Your task to perform on an android device: search for starred emails in the gmail app Image 0: 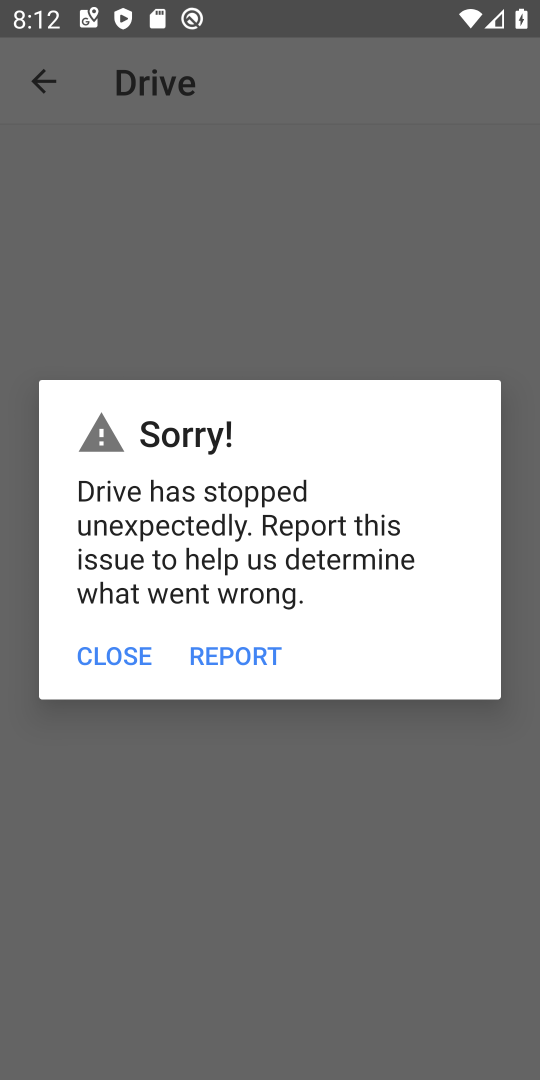
Step 0: press home button
Your task to perform on an android device: search for starred emails in the gmail app Image 1: 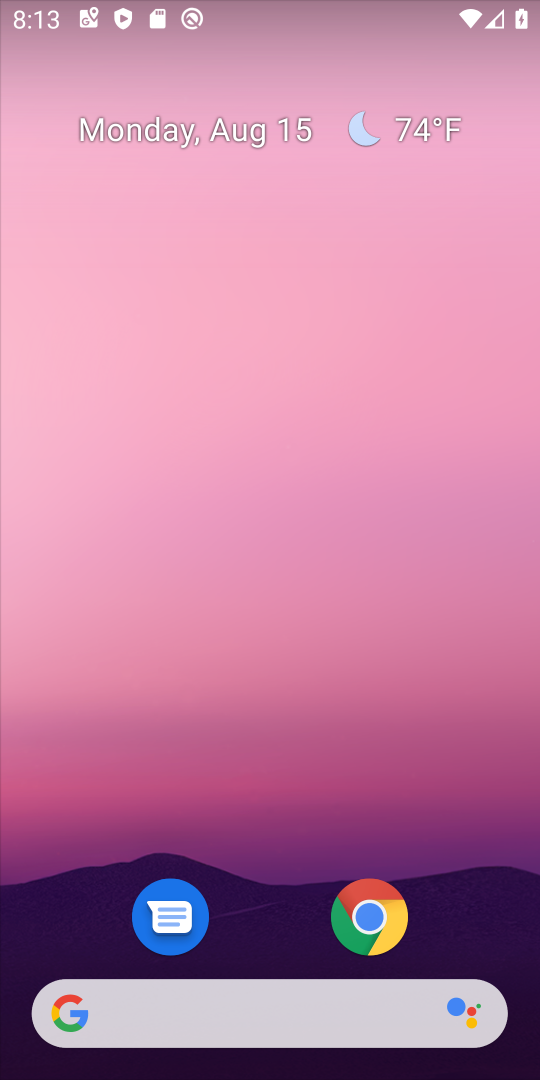
Step 1: drag from (281, 899) to (292, 0)
Your task to perform on an android device: search for starred emails in the gmail app Image 2: 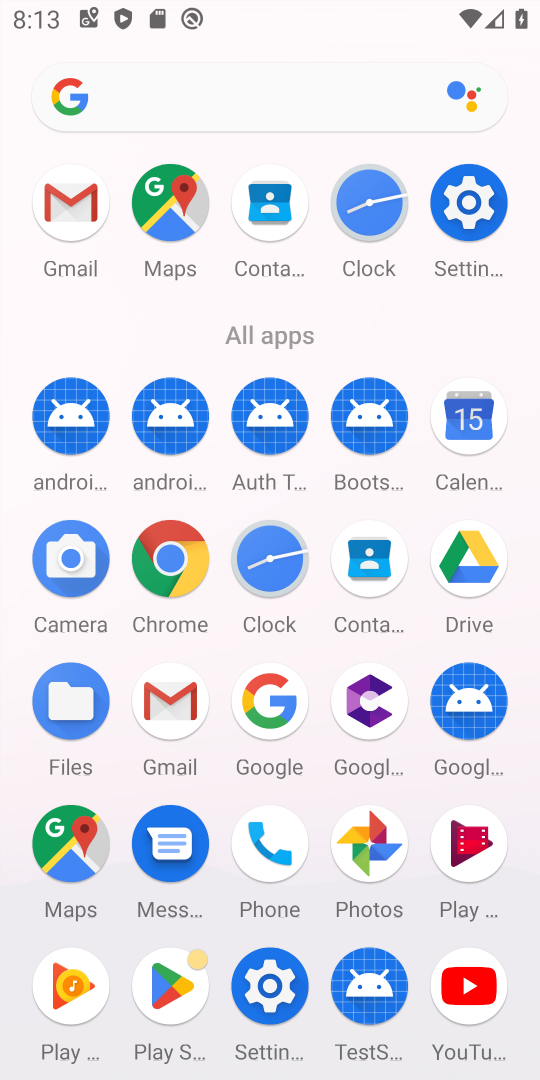
Step 2: click (71, 208)
Your task to perform on an android device: search for starred emails in the gmail app Image 3: 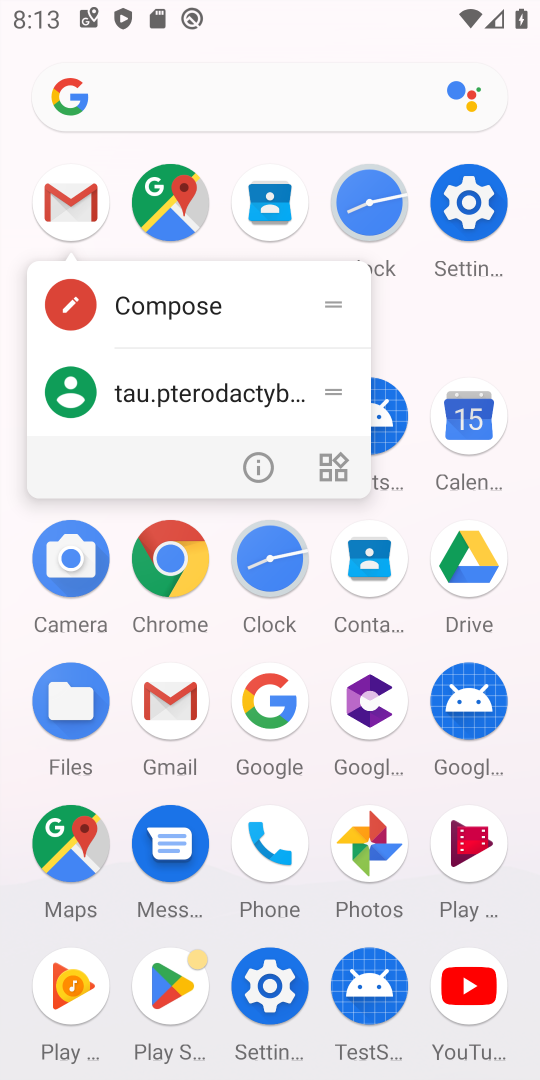
Step 3: click (73, 205)
Your task to perform on an android device: search for starred emails in the gmail app Image 4: 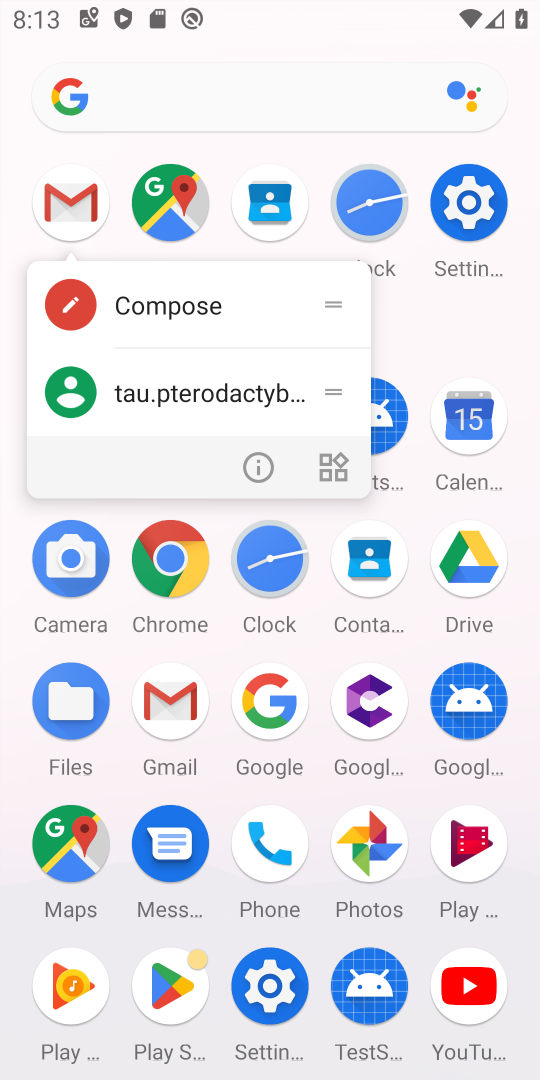
Step 4: click (73, 209)
Your task to perform on an android device: search for starred emails in the gmail app Image 5: 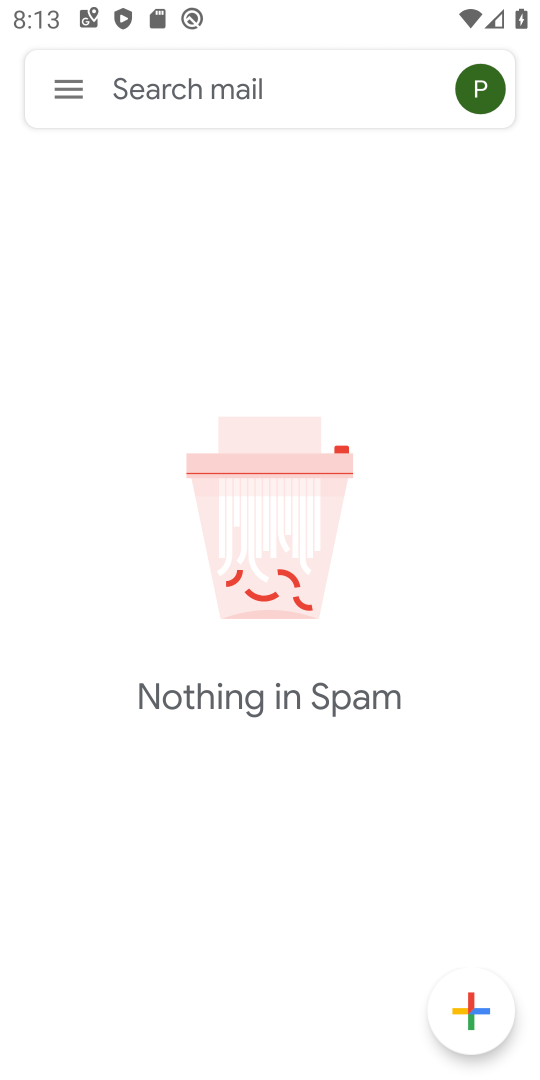
Step 5: click (70, 78)
Your task to perform on an android device: search for starred emails in the gmail app Image 6: 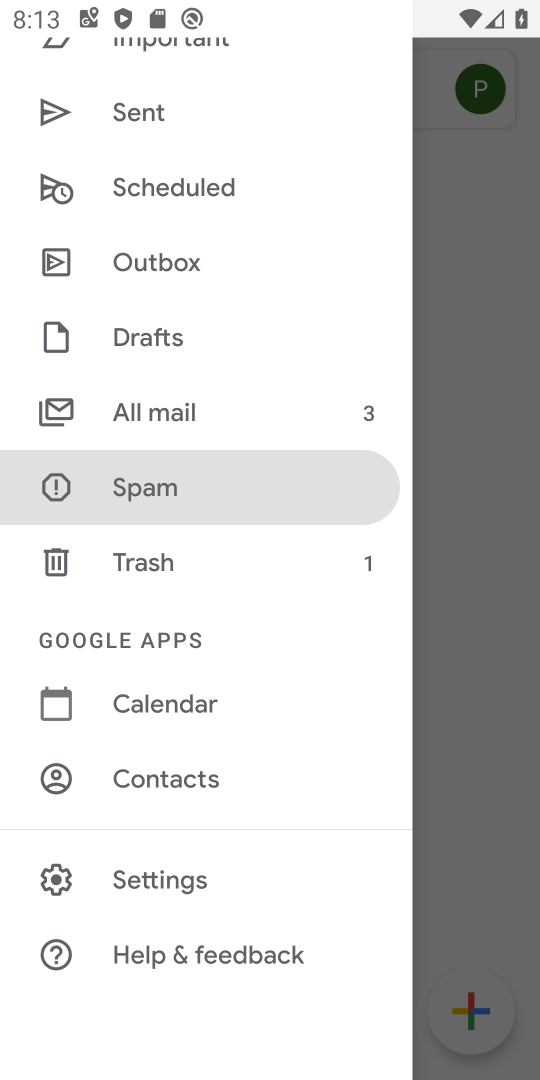
Step 6: drag from (211, 263) to (217, 786)
Your task to perform on an android device: search for starred emails in the gmail app Image 7: 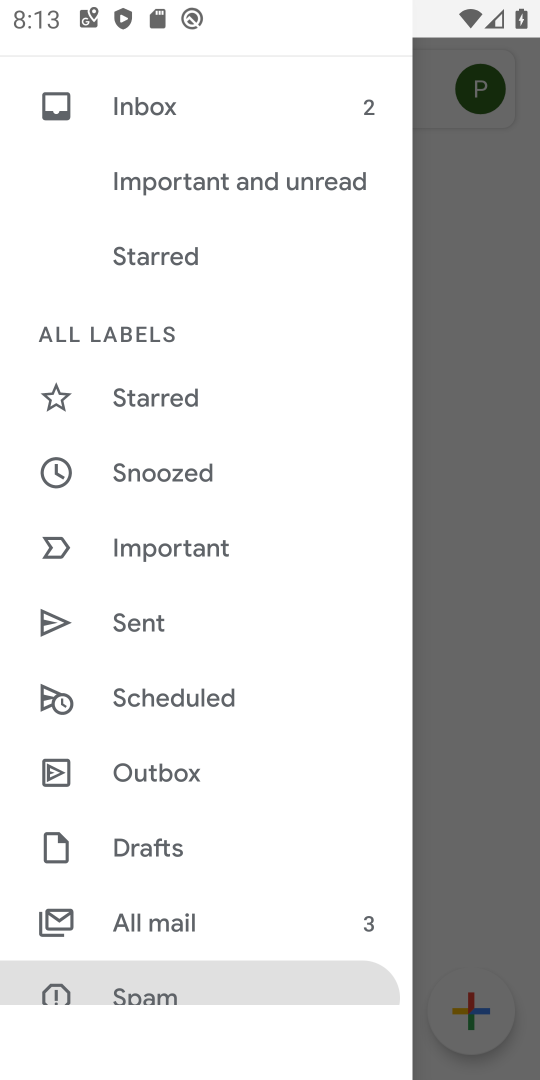
Step 7: click (189, 398)
Your task to perform on an android device: search for starred emails in the gmail app Image 8: 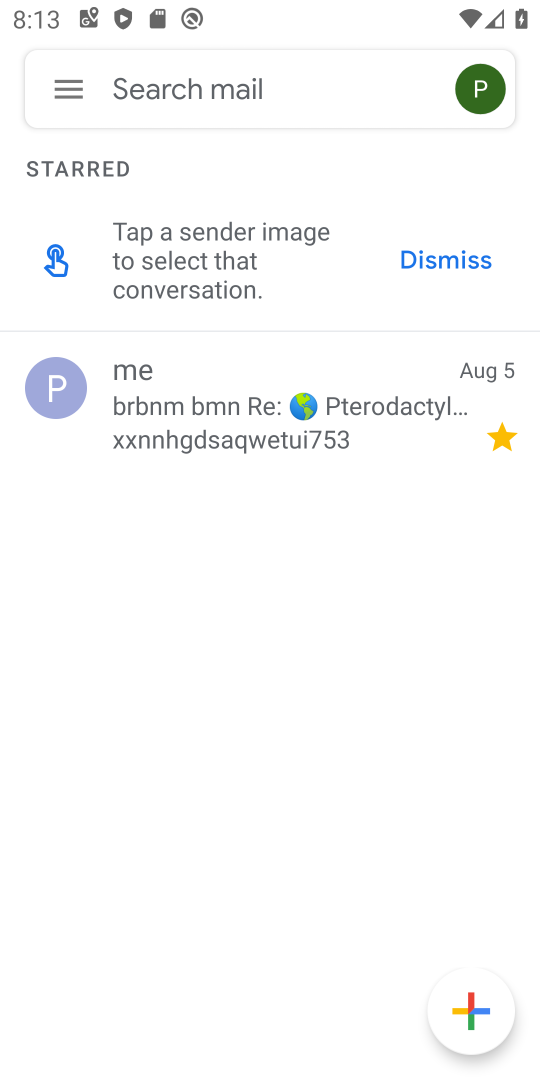
Step 8: task complete